Your task to perform on an android device: turn off javascript in the chrome app Image 0: 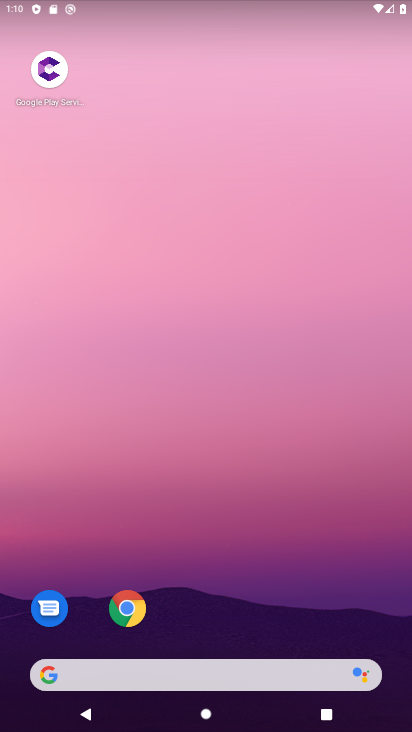
Step 0: click (127, 608)
Your task to perform on an android device: turn off javascript in the chrome app Image 1: 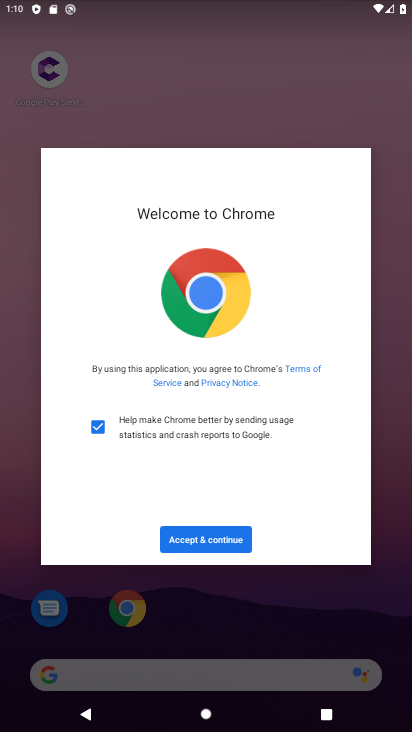
Step 1: click (201, 540)
Your task to perform on an android device: turn off javascript in the chrome app Image 2: 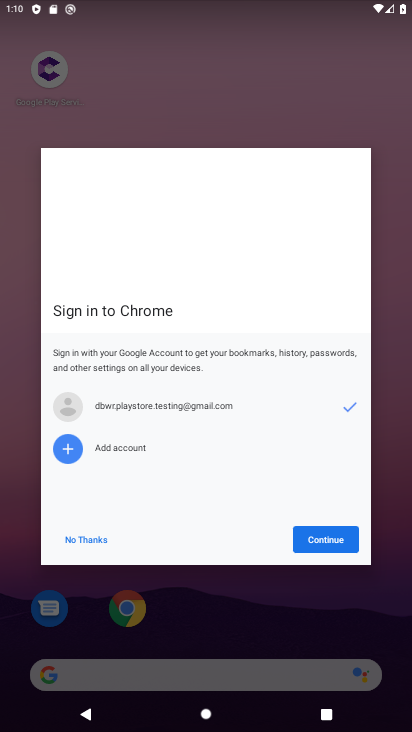
Step 2: click (327, 539)
Your task to perform on an android device: turn off javascript in the chrome app Image 3: 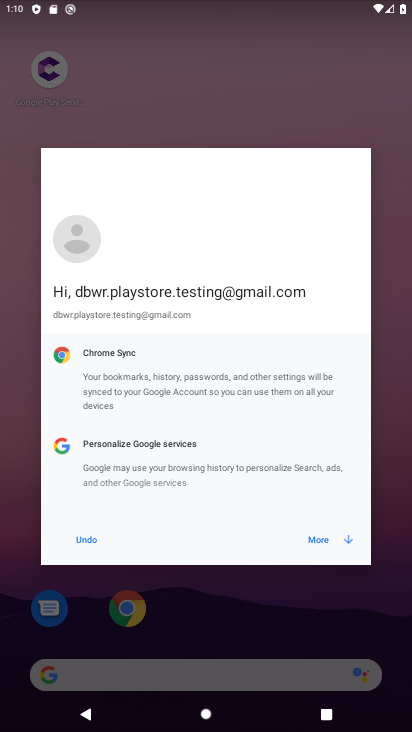
Step 3: click (327, 539)
Your task to perform on an android device: turn off javascript in the chrome app Image 4: 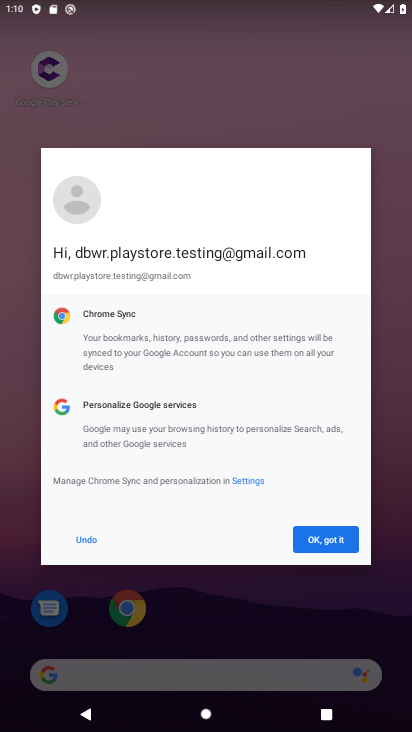
Step 4: click (327, 539)
Your task to perform on an android device: turn off javascript in the chrome app Image 5: 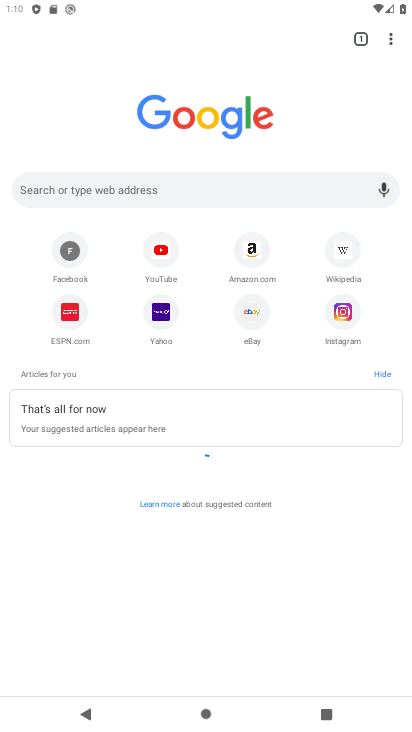
Step 5: click (390, 43)
Your task to perform on an android device: turn off javascript in the chrome app Image 6: 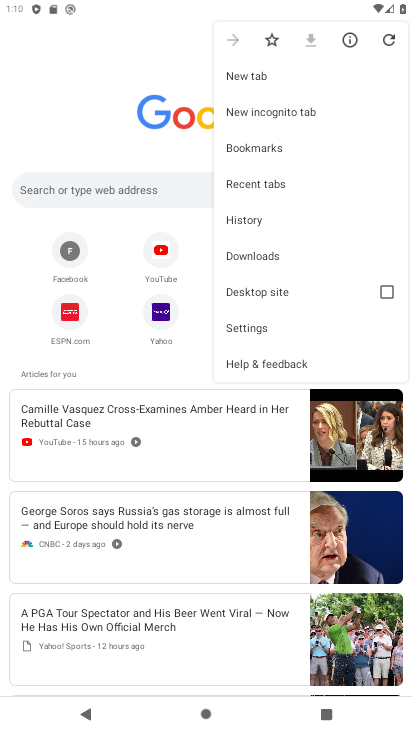
Step 6: click (259, 325)
Your task to perform on an android device: turn off javascript in the chrome app Image 7: 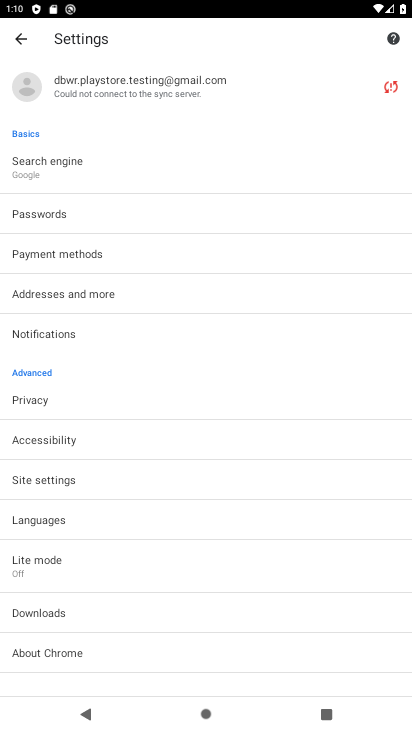
Step 7: click (44, 480)
Your task to perform on an android device: turn off javascript in the chrome app Image 8: 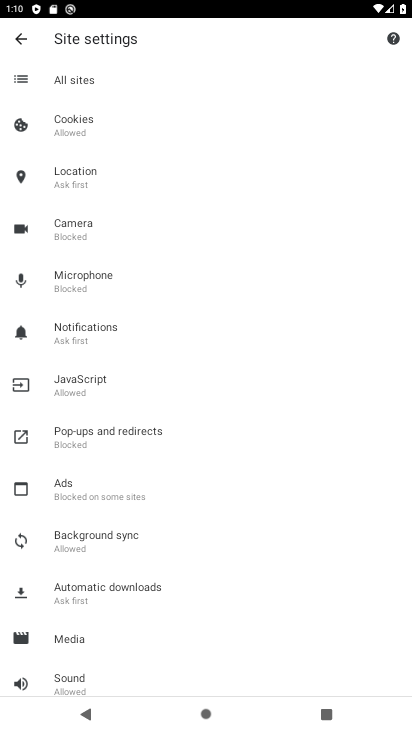
Step 8: click (76, 380)
Your task to perform on an android device: turn off javascript in the chrome app Image 9: 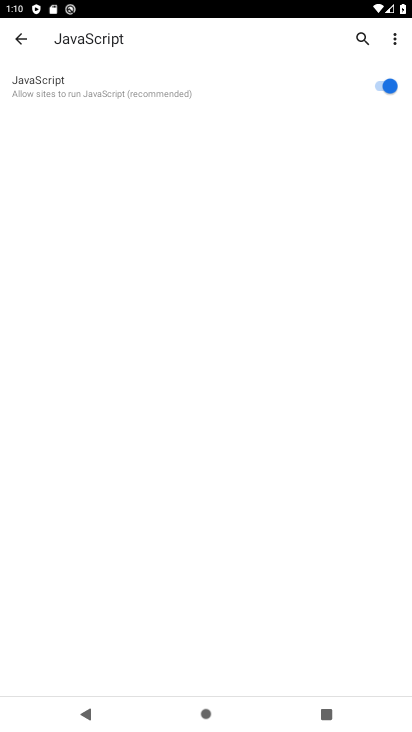
Step 9: click (379, 86)
Your task to perform on an android device: turn off javascript in the chrome app Image 10: 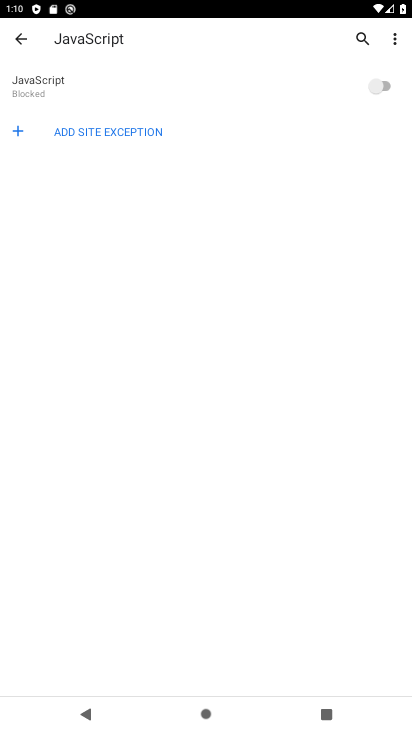
Step 10: task complete